Your task to perform on an android device: turn on improve location accuracy Image 0: 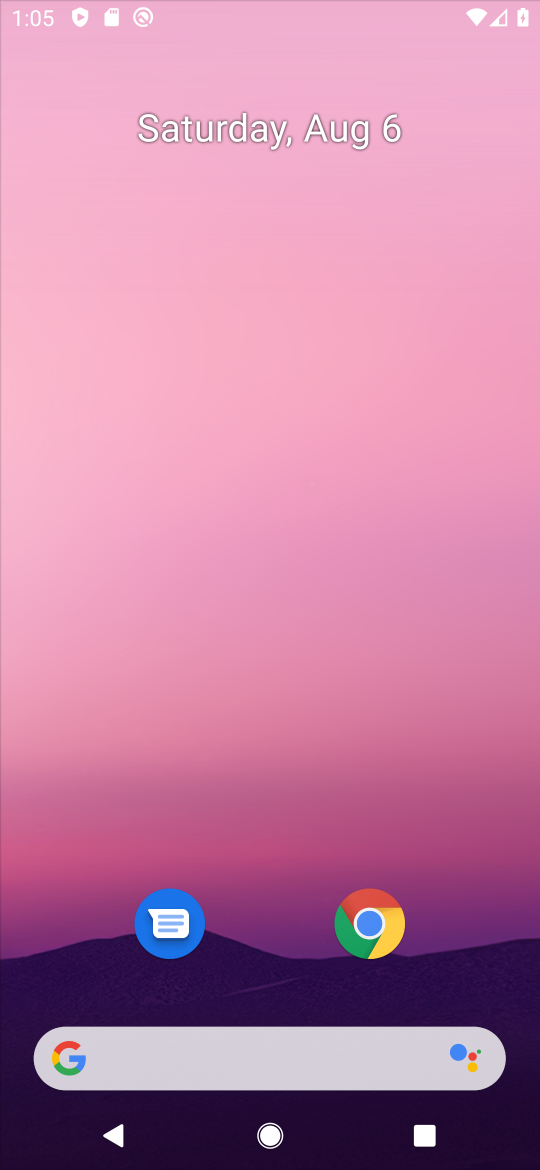
Step 0: press home button
Your task to perform on an android device: turn on improve location accuracy Image 1: 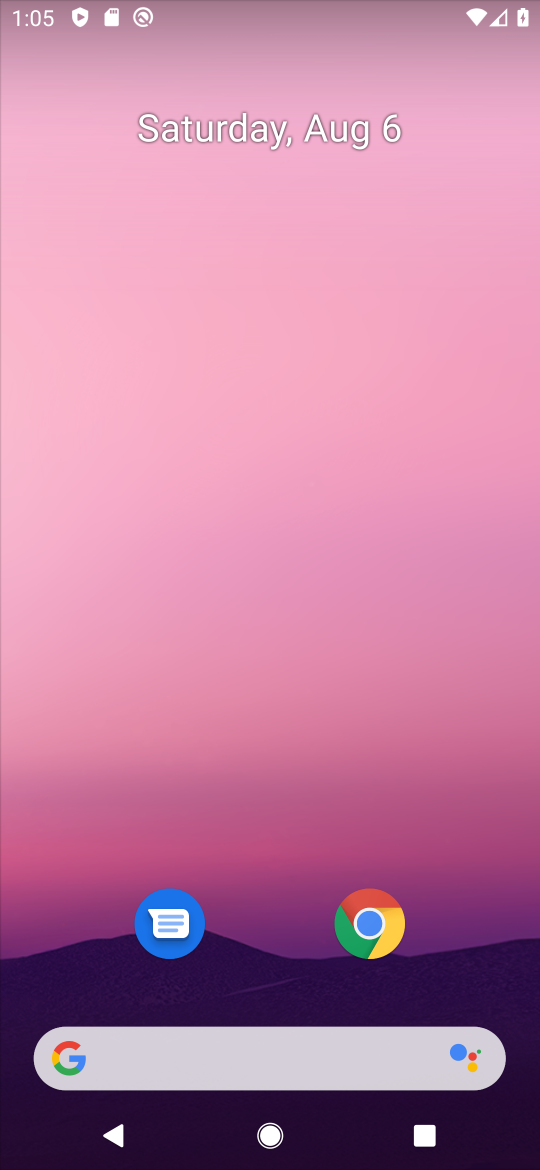
Step 1: press home button
Your task to perform on an android device: turn on improve location accuracy Image 2: 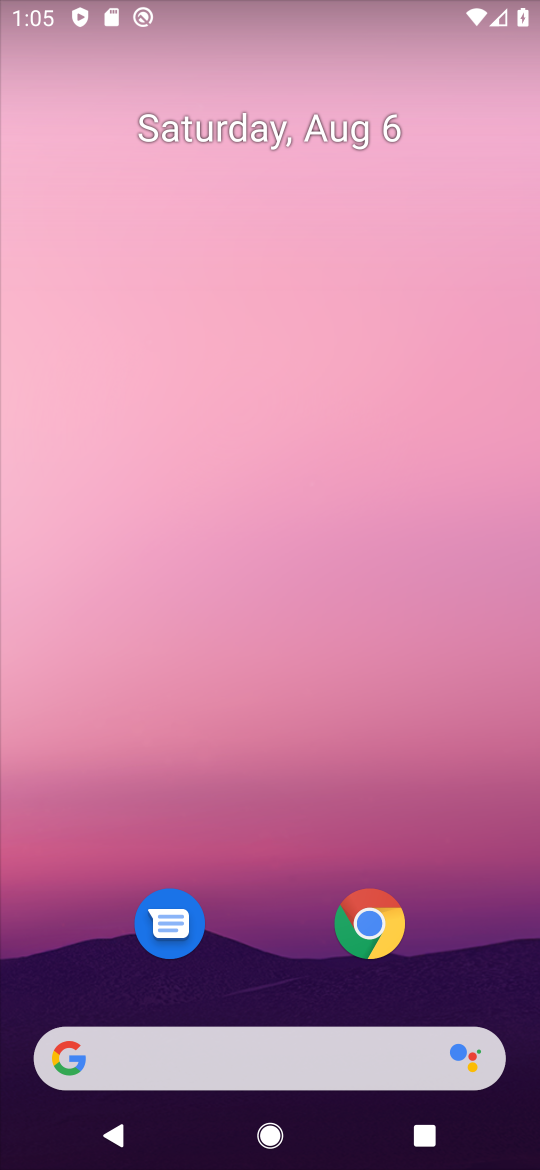
Step 2: drag from (240, 844) to (329, 52)
Your task to perform on an android device: turn on improve location accuracy Image 3: 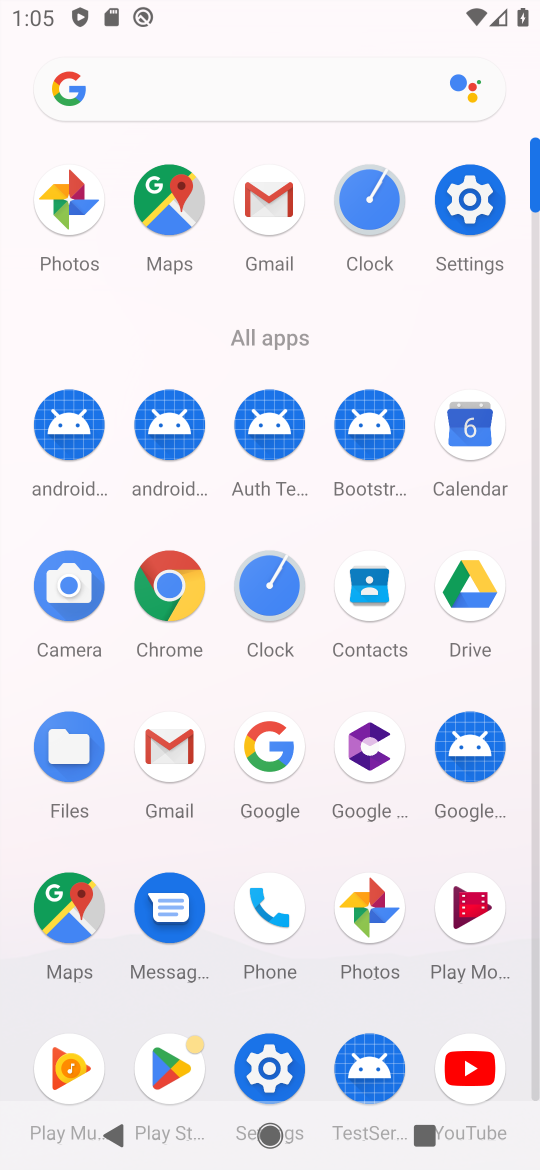
Step 3: click (456, 195)
Your task to perform on an android device: turn on improve location accuracy Image 4: 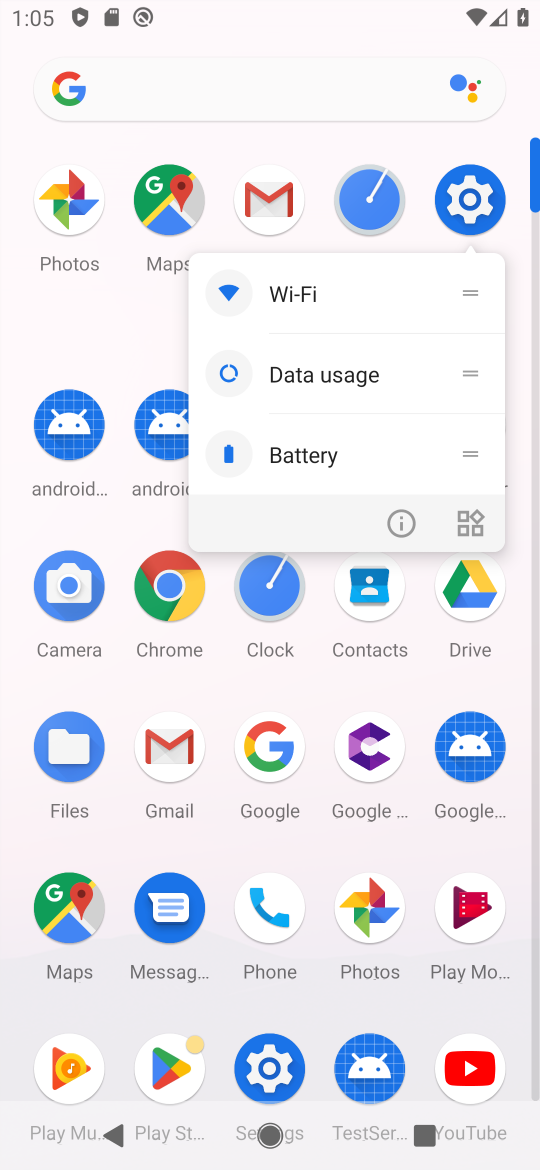
Step 4: click (382, 524)
Your task to perform on an android device: turn on improve location accuracy Image 5: 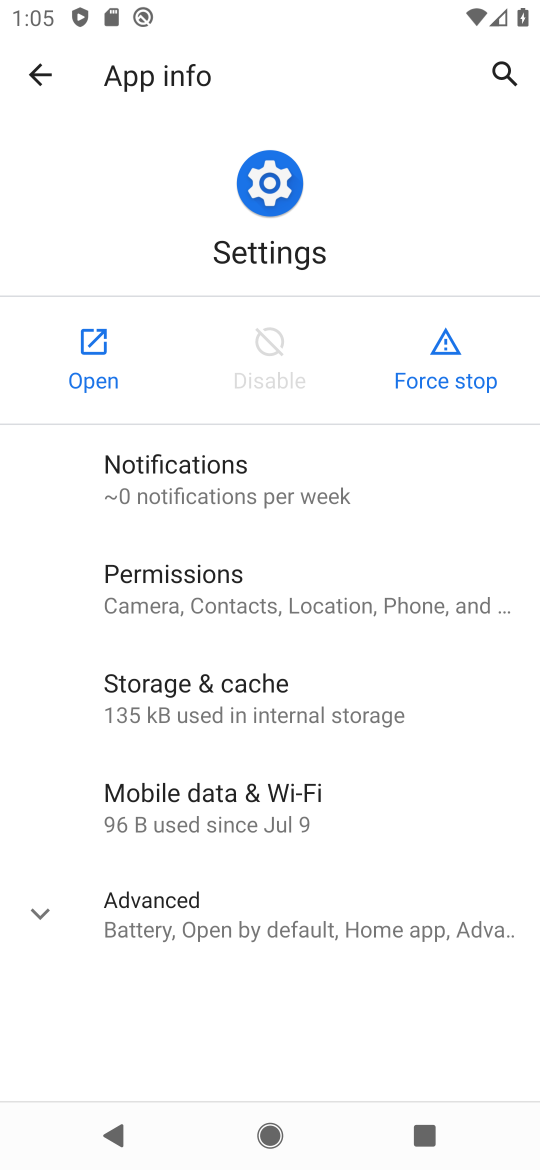
Step 5: click (66, 365)
Your task to perform on an android device: turn on improve location accuracy Image 6: 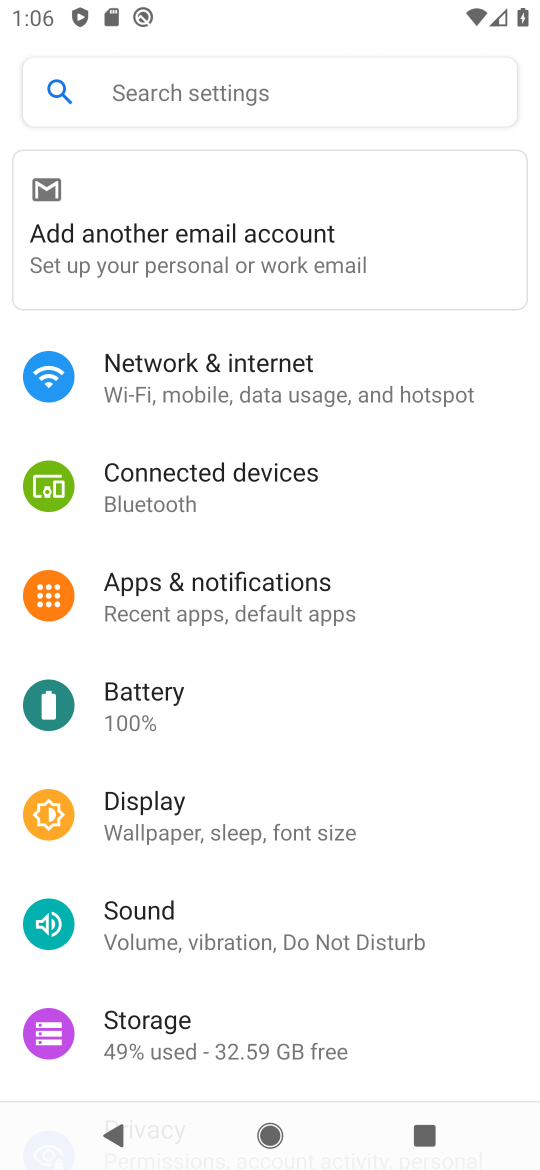
Step 6: drag from (206, 968) to (251, 339)
Your task to perform on an android device: turn on improve location accuracy Image 7: 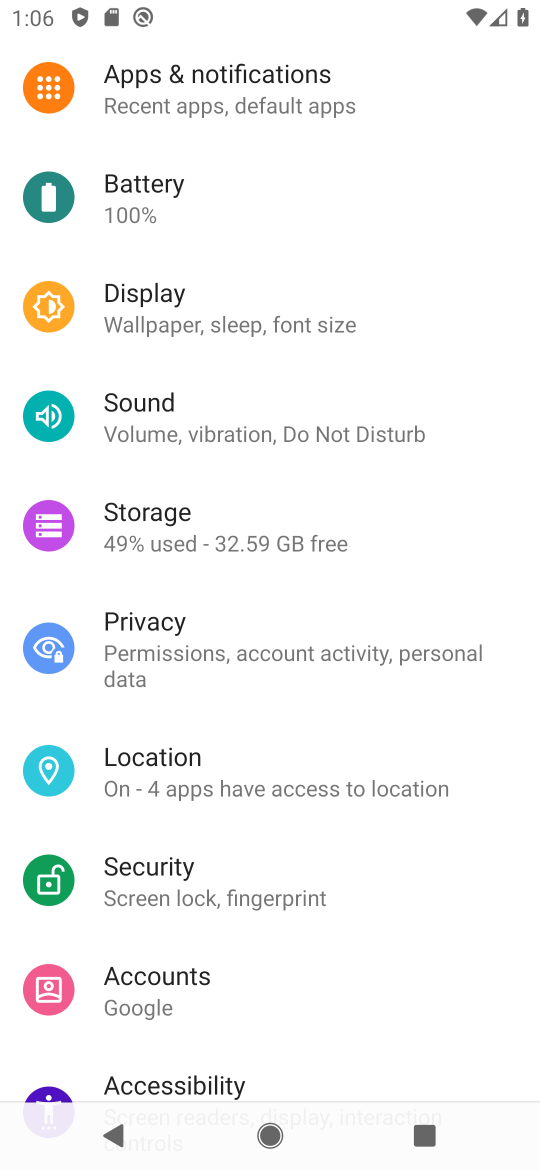
Step 7: click (200, 779)
Your task to perform on an android device: turn on improve location accuracy Image 8: 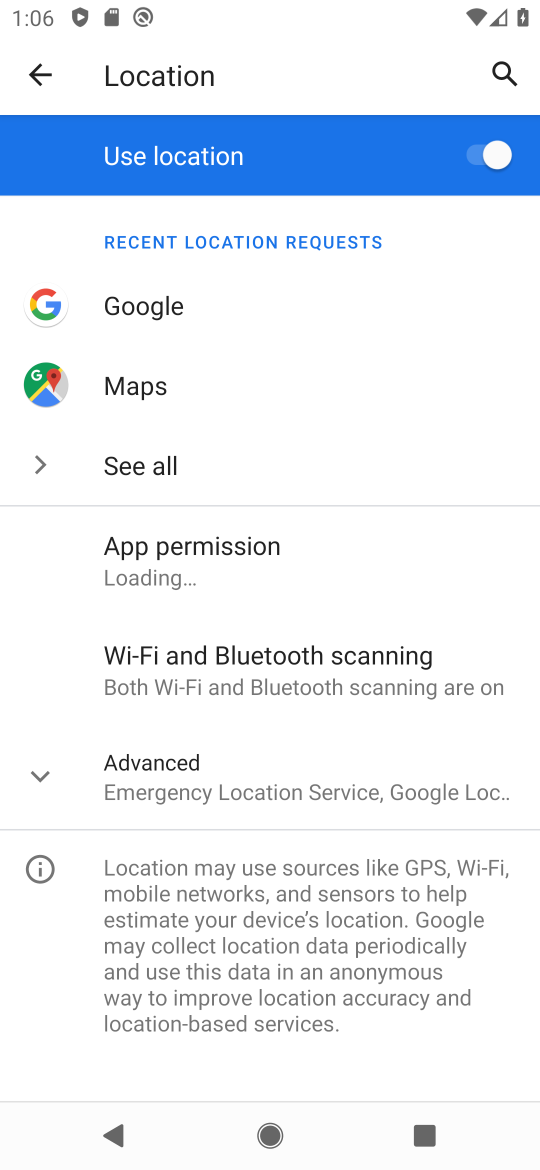
Step 8: click (137, 759)
Your task to perform on an android device: turn on improve location accuracy Image 9: 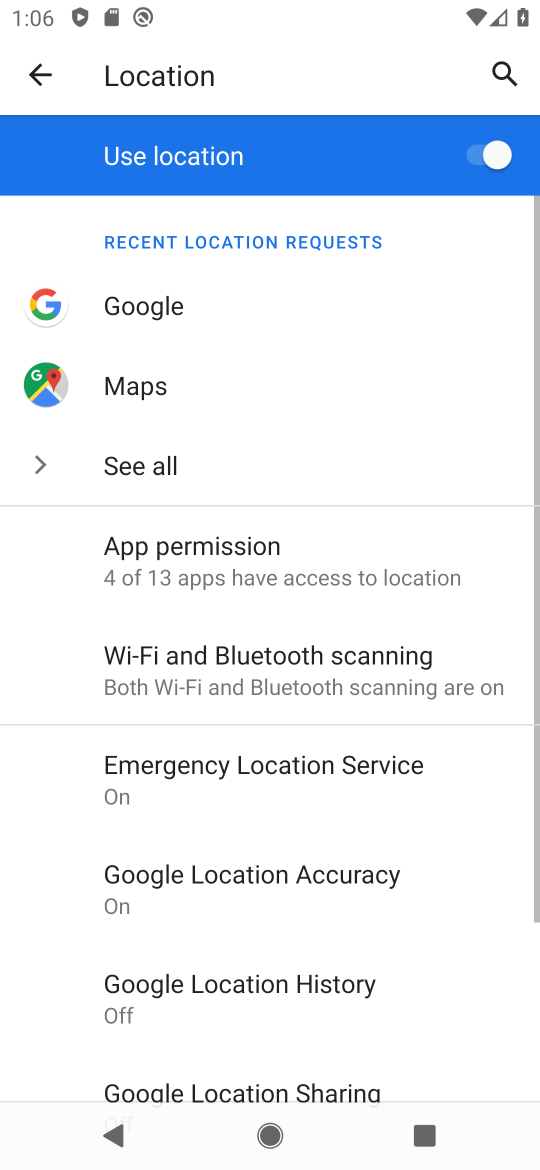
Step 9: click (305, 855)
Your task to perform on an android device: turn on improve location accuracy Image 10: 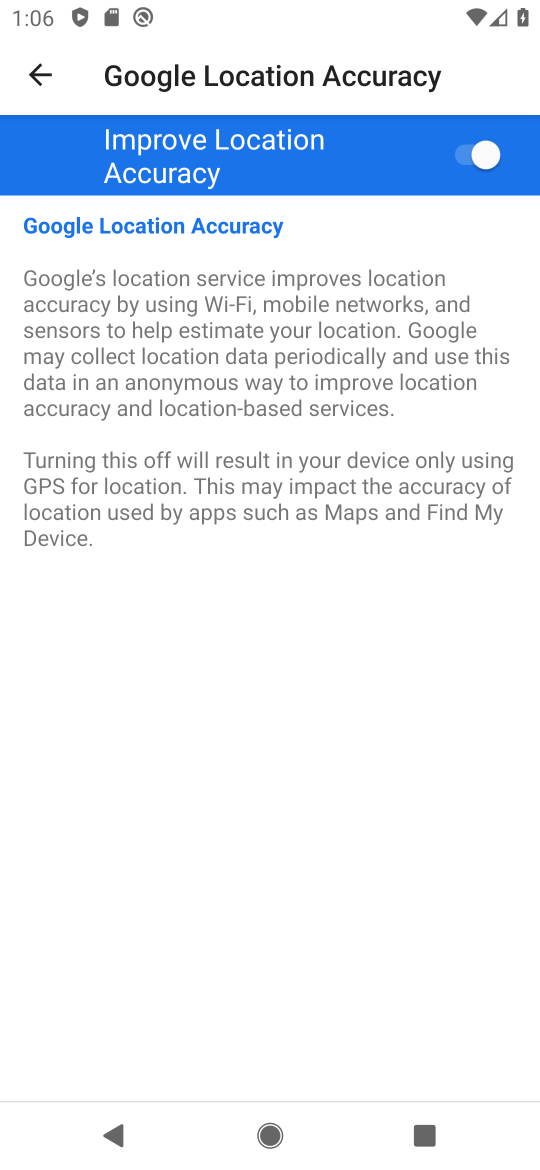
Step 10: task complete